Your task to perform on an android device: Open settings Image 0: 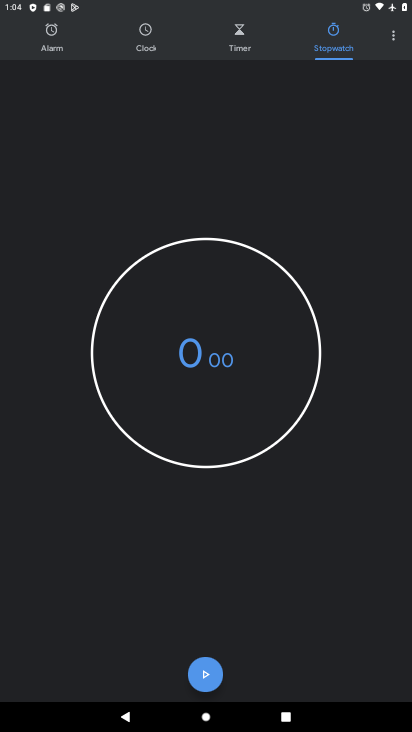
Step 0: press home button
Your task to perform on an android device: Open settings Image 1: 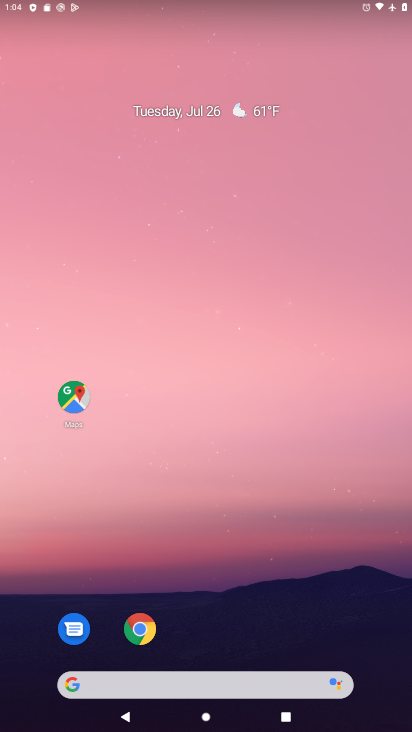
Step 1: drag from (202, 664) to (112, 66)
Your task to perform on an android device: Open settings Image 2: 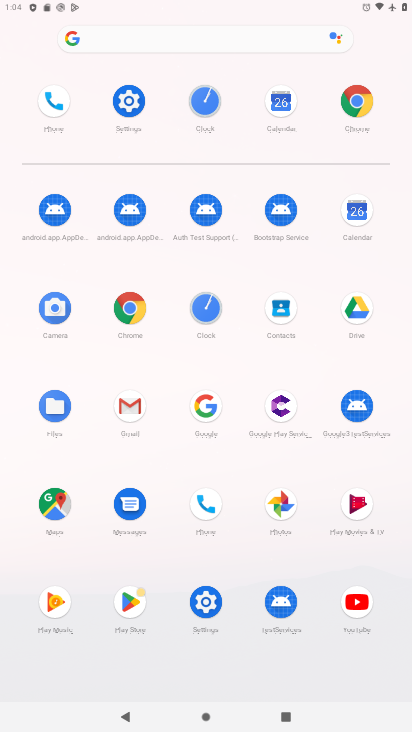
Step 2: click (123, 106)
Your task to perform on an android device: Open settings Image 3: 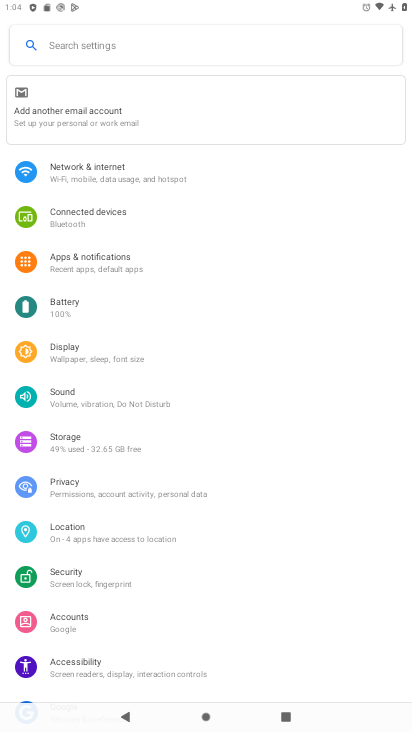
Step 3: task complete